Your task to perform on an android device: When is my next appointment? Image 0: 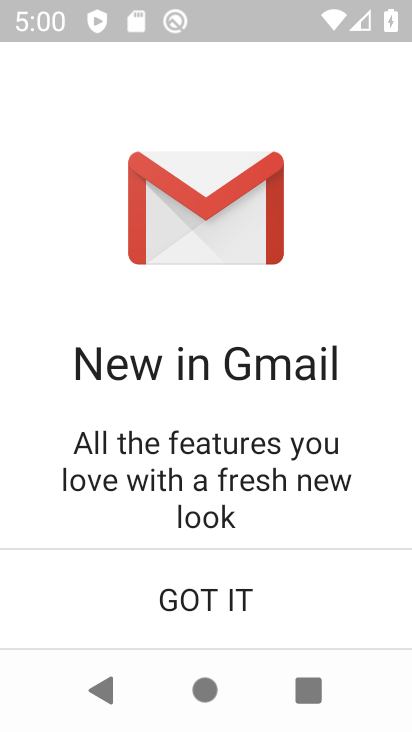
Step 0: click (120, 6)
Your task to perform on an android device: When is my next appointment? Image 1: 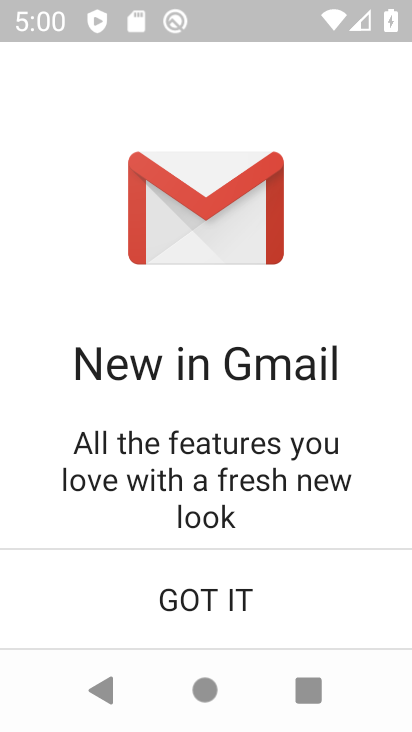
Step 1: press back button
Your task to perform on an android device: When is my next appointment? Image 2: 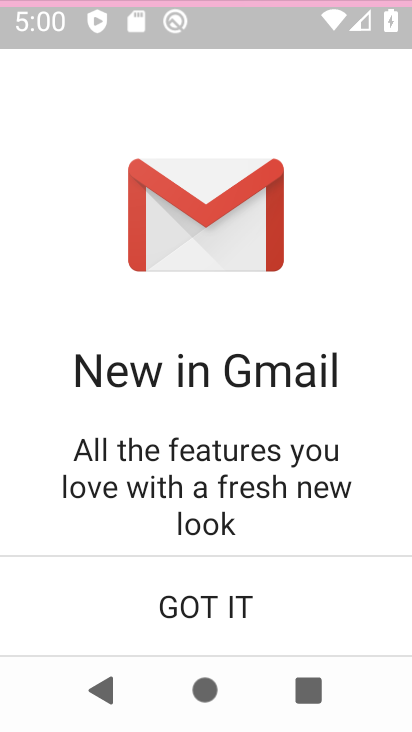
Step 2: press back button
Your task to perform on an android device: When is my next appointment? Image 3: 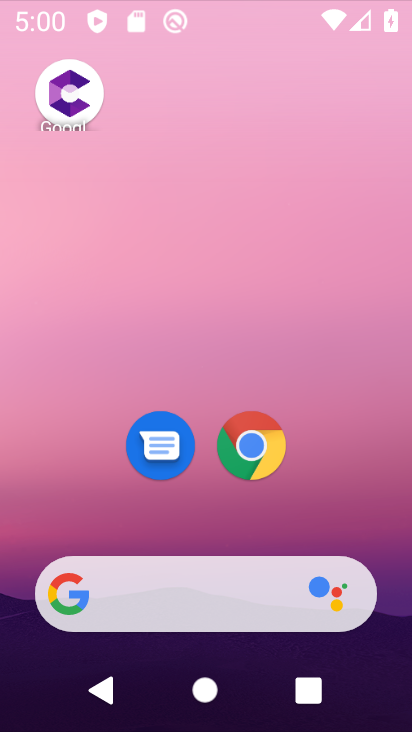
Step 3: press back button
Your task to perform on an android device: When is my next appointment? Image 4: 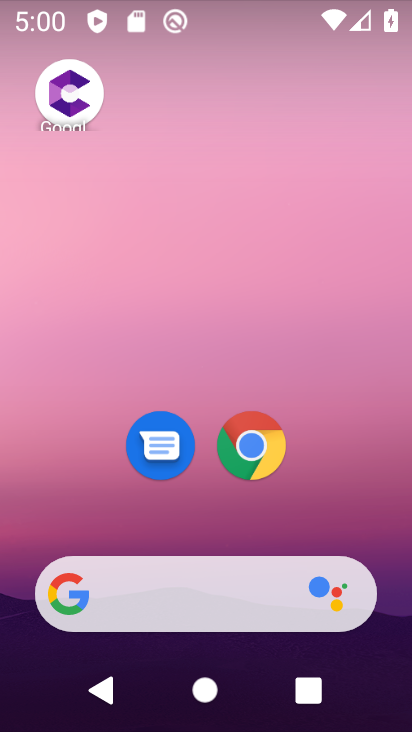
Step 4: drag from (357, 513) to (99, 36)
Your task to perform on an android device: When is my next appointment? Image 5: 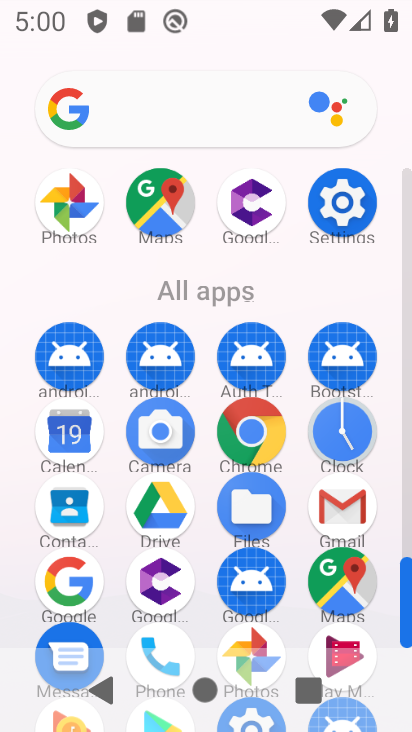
Step 5: drag from (206, 520) to (186, 123)
Your task to perform on an android device: When is my next appointment? Image 6: 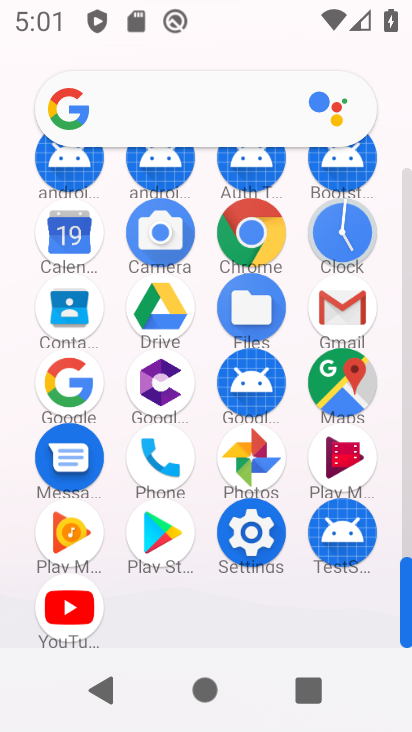
Step 6: click (60, 237)
Your task to perform on an android device: When is my next appointment? Image 7: 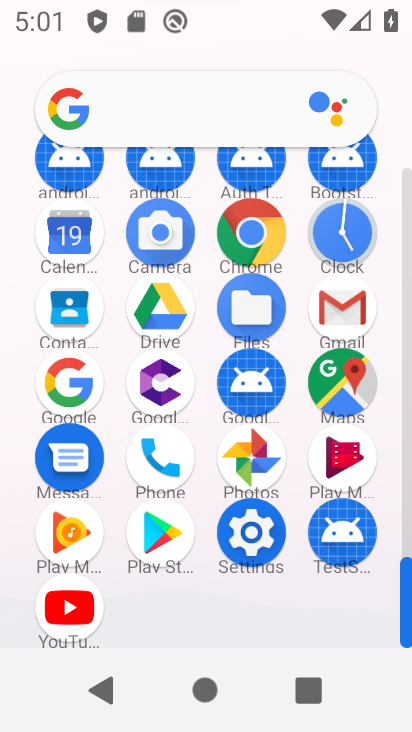
Step 7: click (60, 237)
Your task to perform on an android device: When is my next appointment? Image 8: 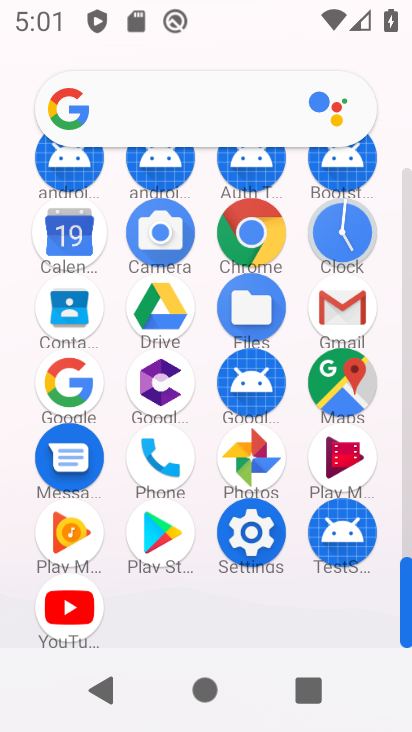
Step 8: click (60, 237)
Your task to perform on an android device: When is my next appointment? Image 9: 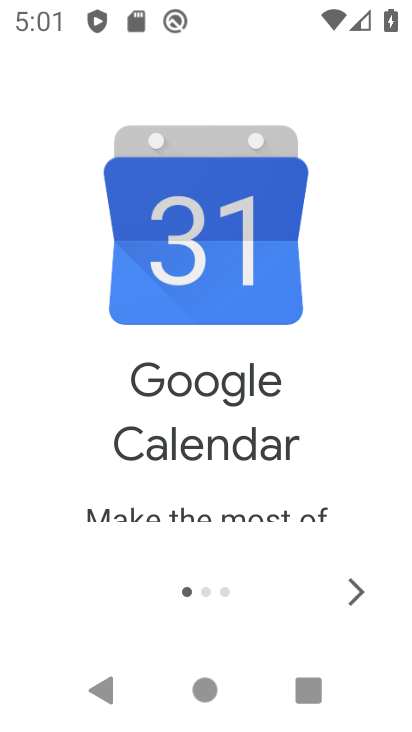
Step 9: click (366, 590)
Your task to perform on an android device: When is my next appointment? Image 10: 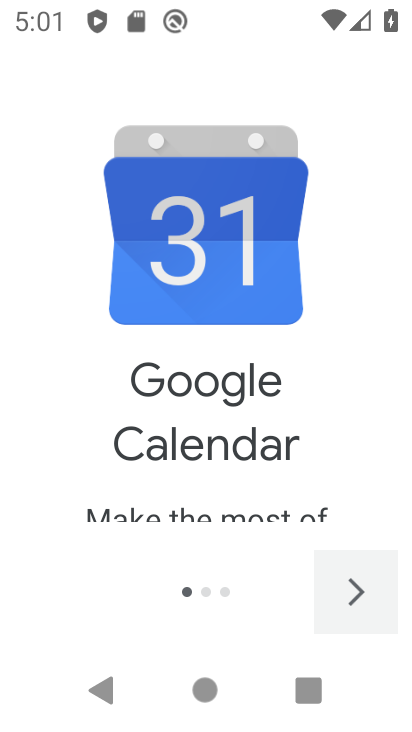
Step 10: click (357, 591)
Your task to perform on an android device: When is my next appointment? Image 11: 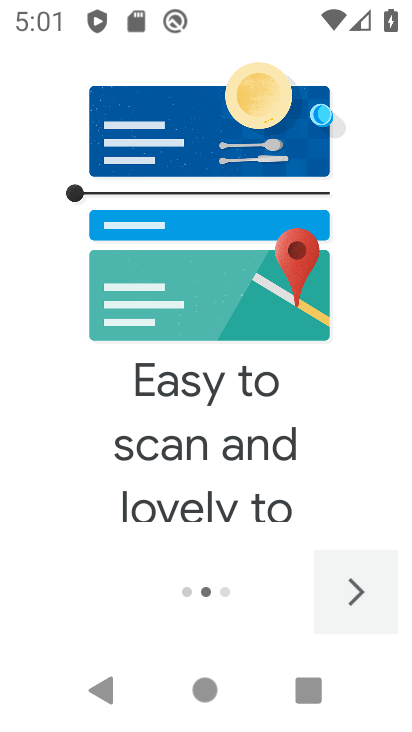
Step 11: click (357, 591)
Your task to perform on an android device: When is my next appointment? Image 12: 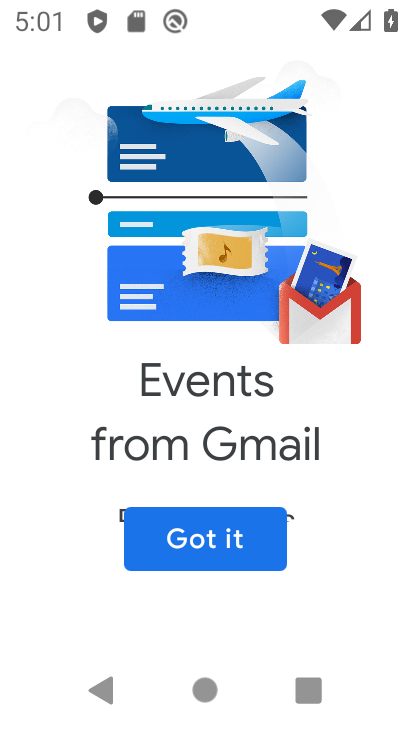
Step 12: click (355, 591)
Your task to perform on an android device: When is my next appointment? Image 13: 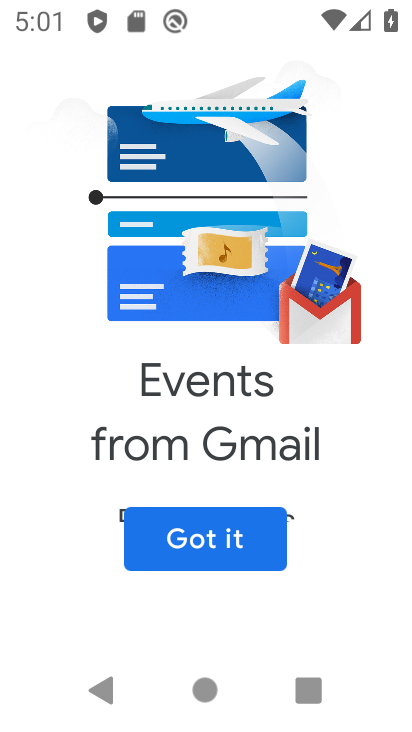
Step 13: click (355, 591)
Your task to perform on an android device: When is my next appointment? Image 14: 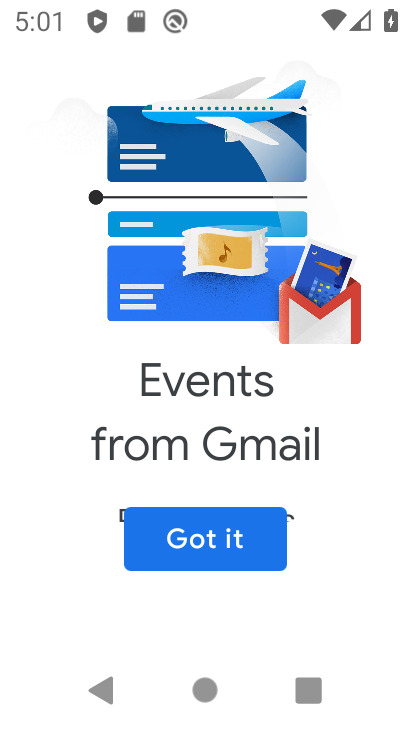
Step 14: click (226, 535)
Your task to perform on an android device: When is my next appointment? Image 15: 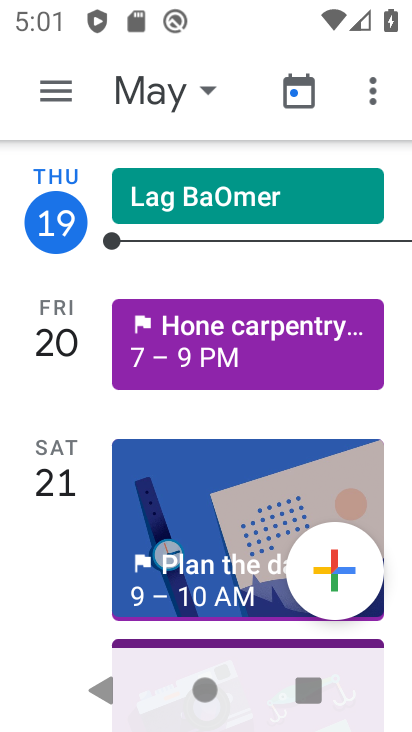
Step 15: drag from (184, 244) to (186, 556)
Your task to perform on an android device: When is my next appointment? Image 16: 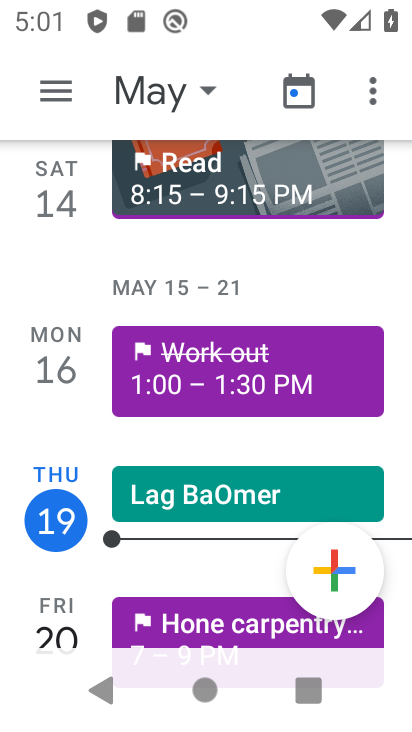
Step 16: drag from (147, 265) to (218, 555)
Your task to perform on an android device: When is my next appointment? Image 17: 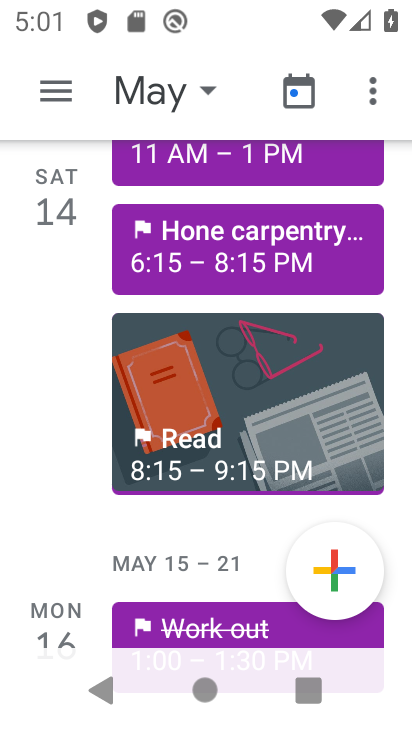
Step 17: drag from (233, 562) to (251, 627)
Your task to perform on an android device: When is my next appointment? Image 18: 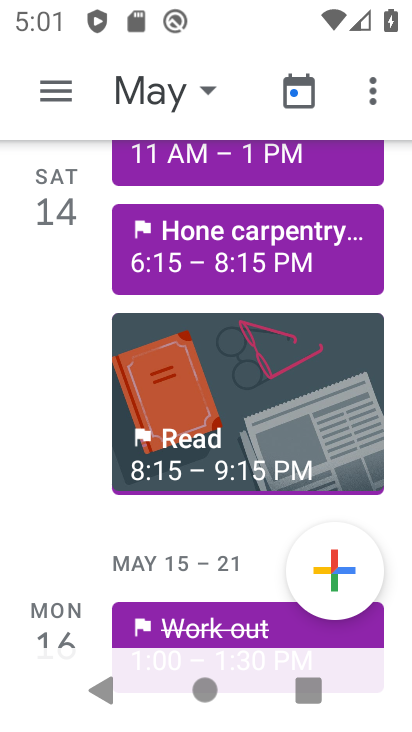
Step 18: drag from (157, 311) to (252, 600)
Your task to perform on an android device: When is my next appointment? Image 19: 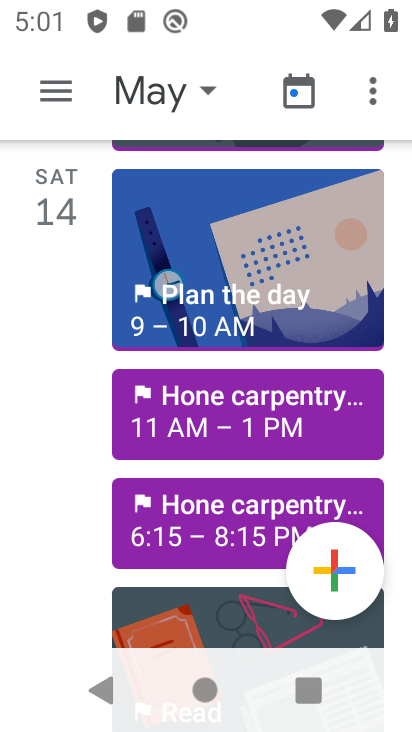
Step 19: drag from (190, 288) to (241, 627)
Your task to perform on an android device: When is my next appointment? Image 20: 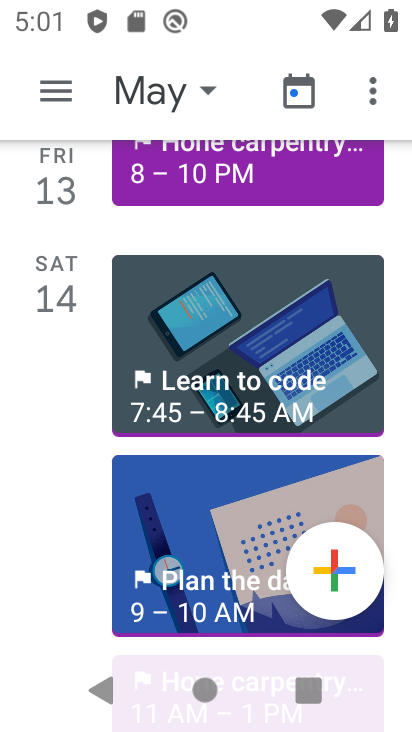
Step 20: drag from (164, 394) to (218, 611)
Your task to perform on an android device: When is my next appointment? Image 21: 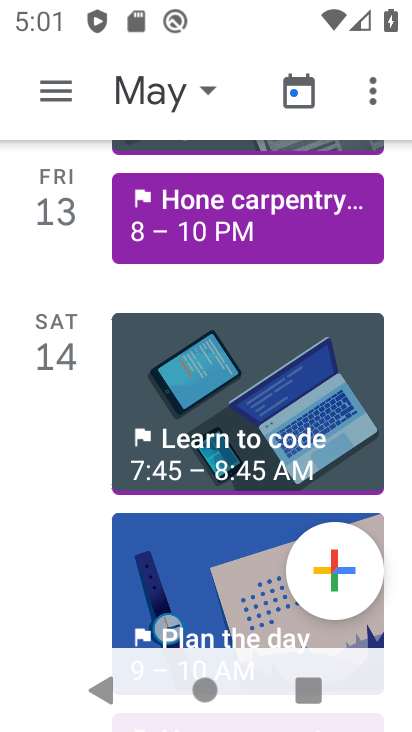
Step 21: drag from (151, 256) to (210, 621)
Your task to perform on an android device: When is my next appointment? Image 22: 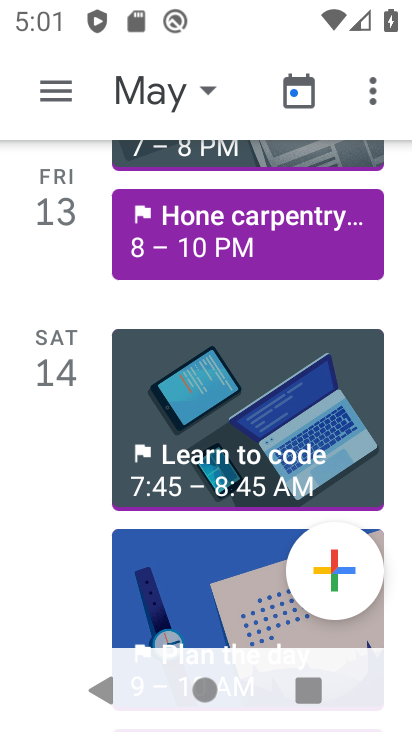
Step 22: drag from (186, 281) to (230, 723)
Your task to perform on an android device: When is my next appointment? Image 23: 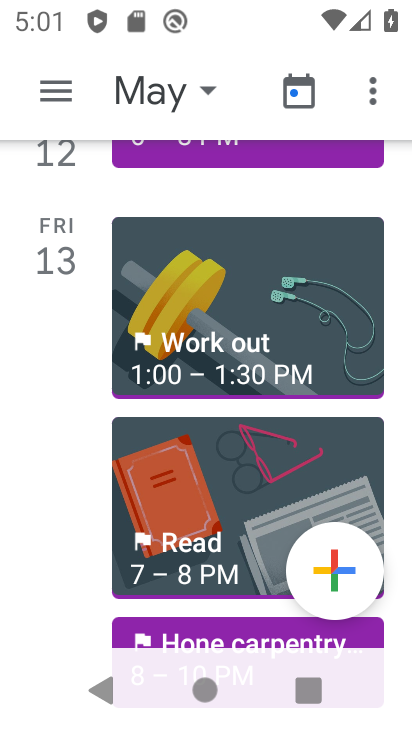
Step 23: drag from (181, 275) to (225, 611)
Your task to perform on an android device: When is my next appointment? Image 24: 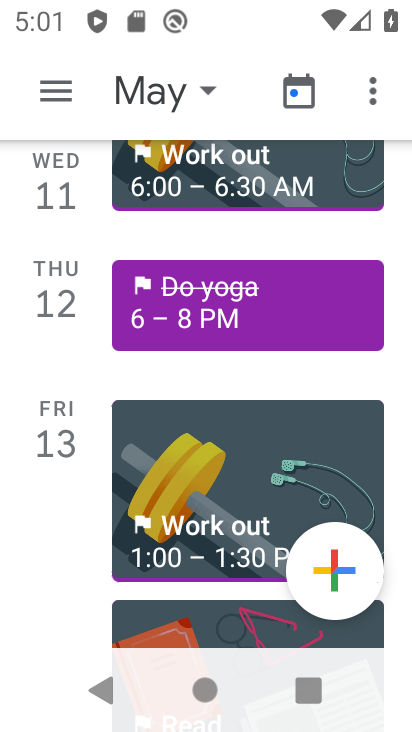
Step 24: drag from (230, 282) to (247, 665)
Your task to perform on an android device: When is my next appointment? Image 25: 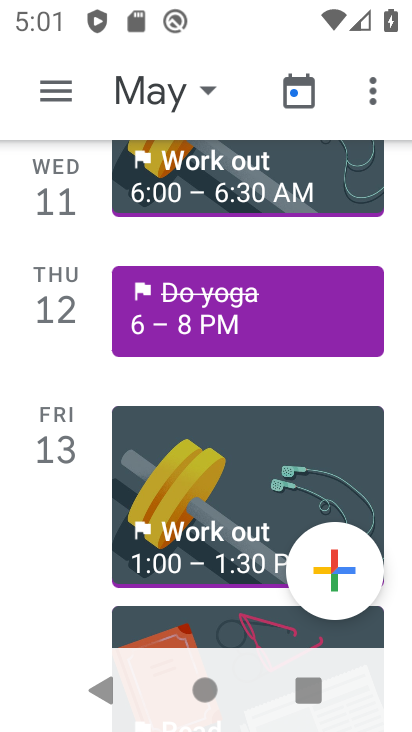
Step 25: drag from (127, 261) to (169, 548)
Your task to perform on an android device: When is my next appointment? Image 26: 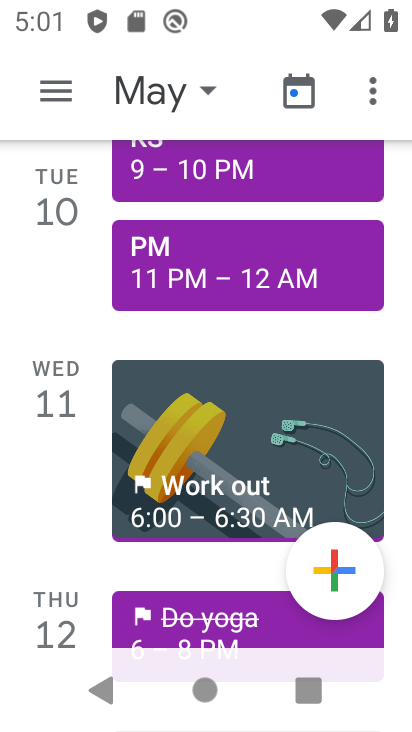
Step 26: drag from (152, 288) to (160, 641)
Your task to perform on an android device: When is my next appointment? Image 27: 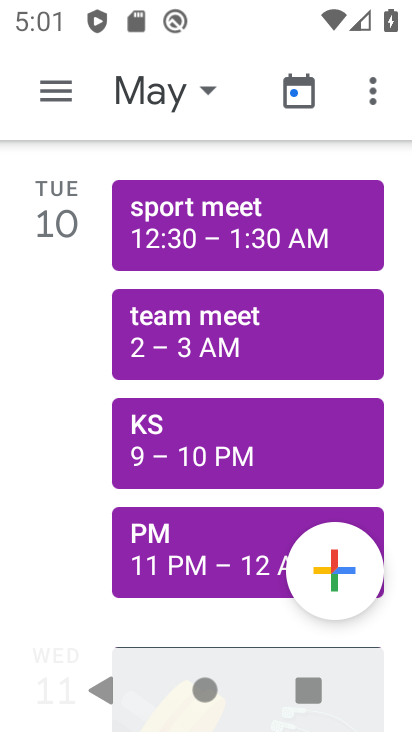
Step 27: drag from (152, 360) to (166, 623)
Your task to perform on an android device: When is my next appointment? Image 28: 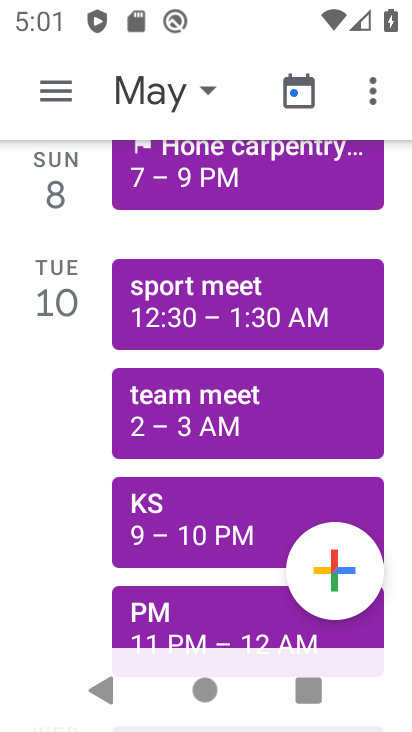
Step 28: drag from (166, 310) to (227, 665)
Your task to perform on an android device: When is my next appointment? Image 29: 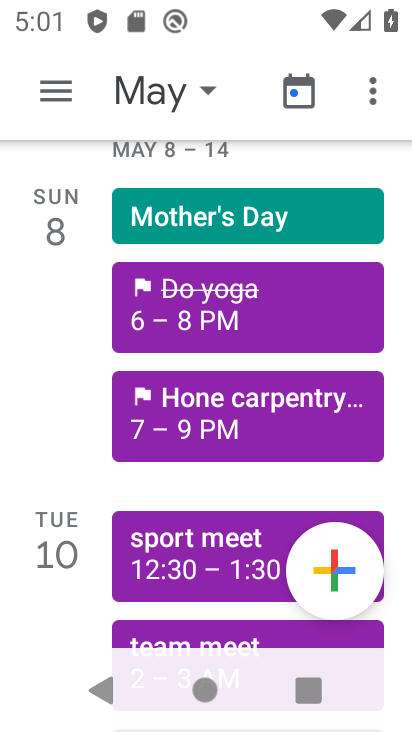
Step 29: drag from (184, 357) to (253, 647)
Your task to perform on an android device: When is my next appointment? Image 30: 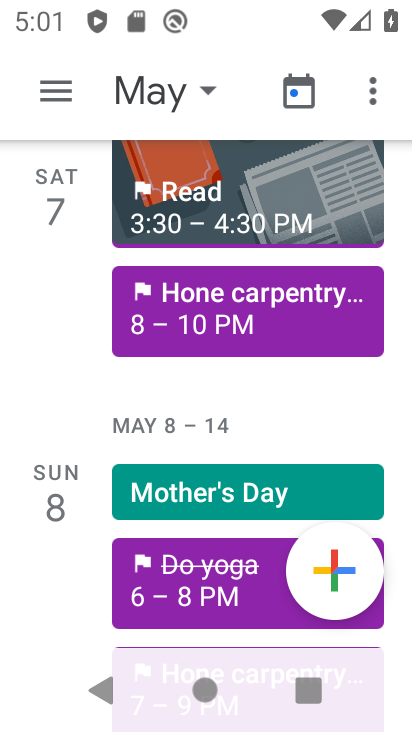
Step 30: drag from (205, 313) to (239, 590)
Your task to perform on an android device: When is my next appointment? Image 31: 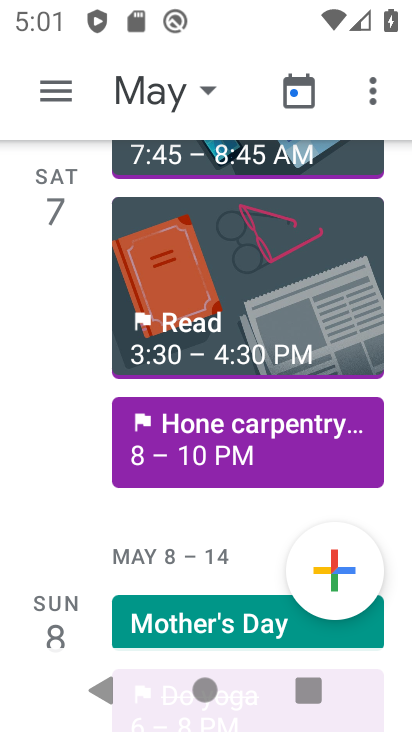
Step 31: drag from (193, 601) to (238, 168)
Your task to perform on an android device: When is my next appointment? Image 32: 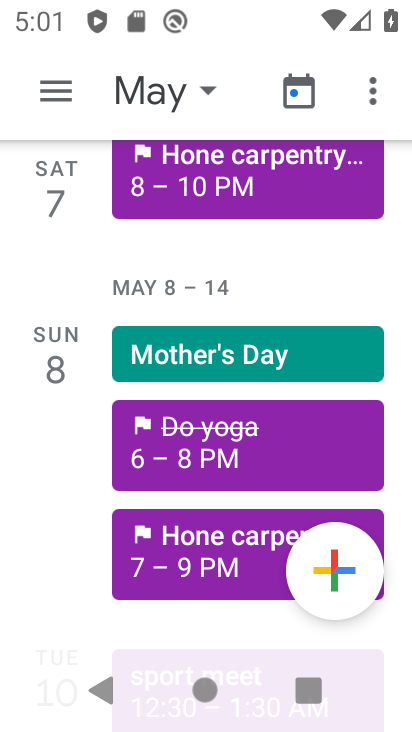
Step 32: drag from (241, 443) to (178, 76)
Your task to perform on an android device: When is my next appointment? Image 33: 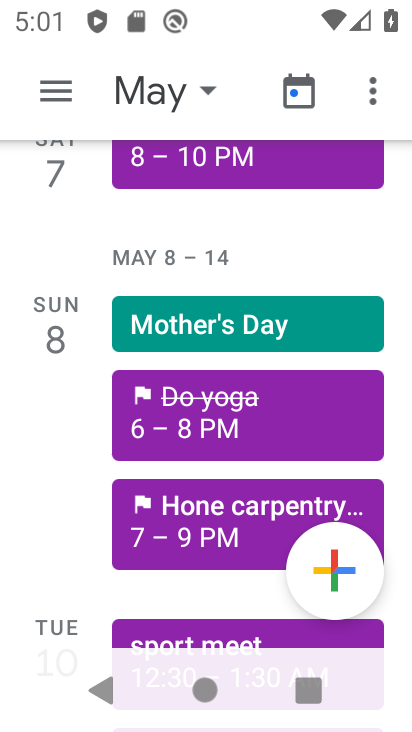
Step 33: drag from (165, 473) to (139, 270)
Your task to perform on an android device: When is my next appointment? Image 34: 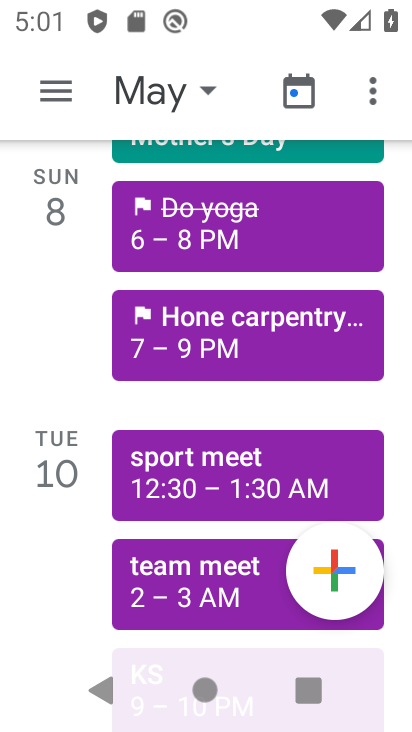
Step 34: drag from (150, 364) to (126, 197)
Your task to perform on an android device: When is my next appointment? Image 35: 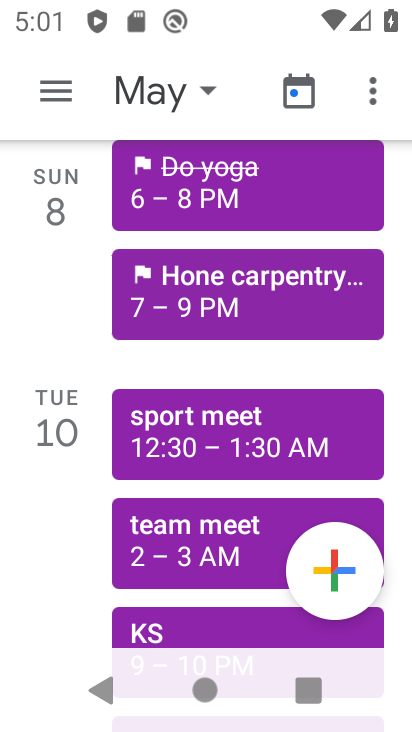
Step 35: drag from (166, 409) to (140, 92)
Your task to perform on an android device: When is my next appointment? Image 36: 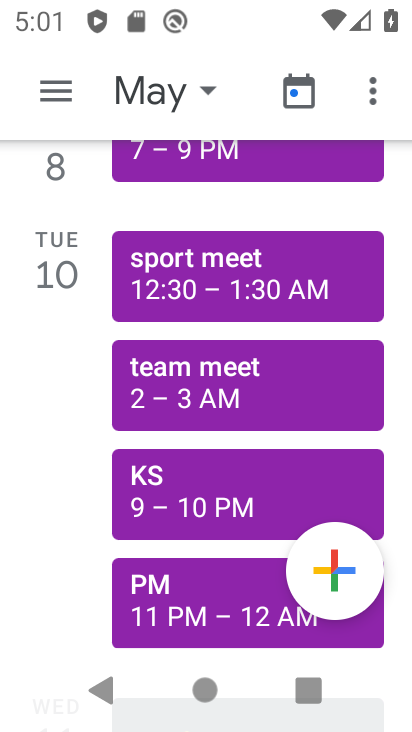
Step 36: drag from (194, 426) to (133, 132)
Your task to perform on an android device: When is my next appointment? Image 37: 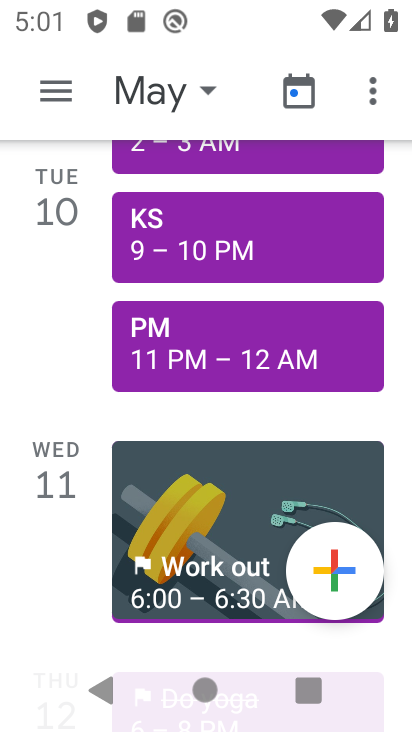
Step 37: drag from (168, 467) to (153, 141)
Your task to perform on an android device: When is my next appointment? Image 38: 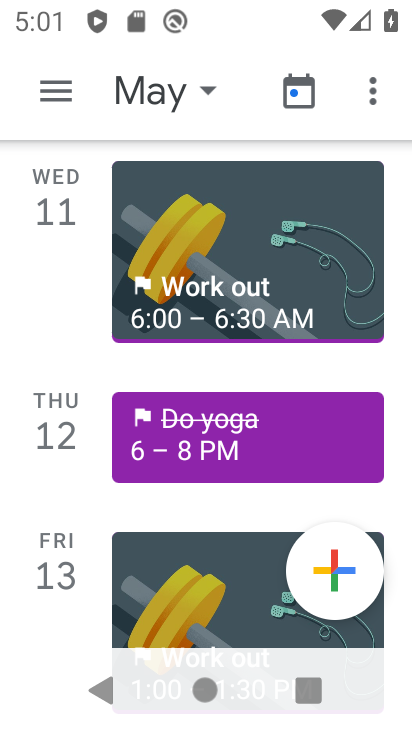
Step 38: drag from (176, 422) to (174, 215)
Your task to perform on an android device: When is my next appointment? Image 39: 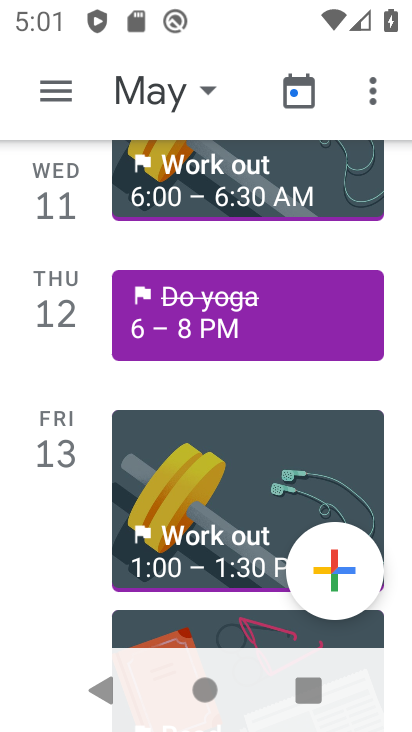
Step 39: drag from (159, 505) to (159, 191)
Your task to perform on an android device: When is my next appointment? Image 40: 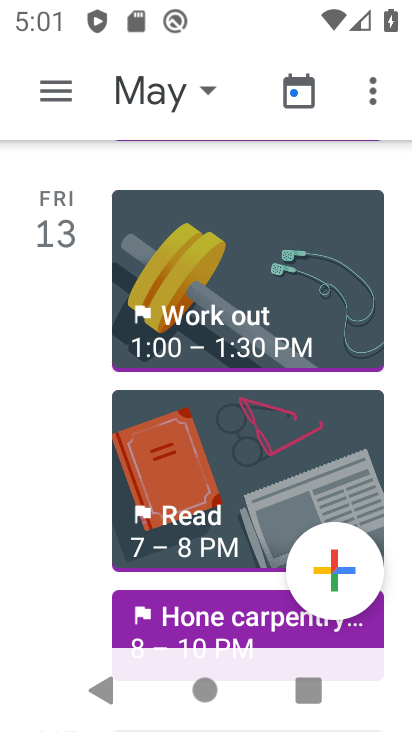
Step 40: drag from (159, 557) to (160, 167)
Your task to perform on an android device: When is my next appointment? Image 41: 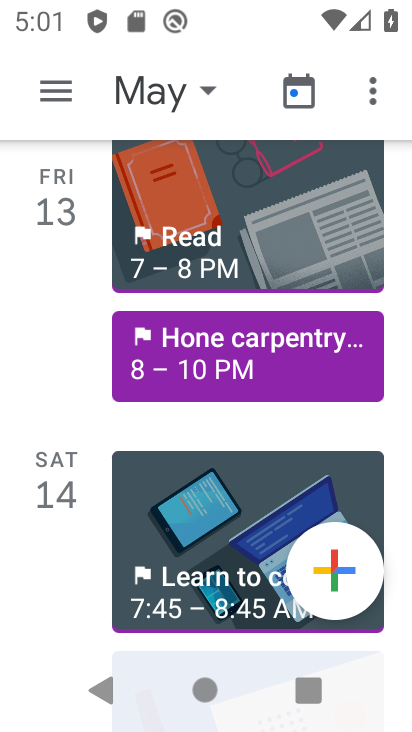
Step 41: drag from (180, 460) to (200, 69)
Your task to perform on an android device: When is my next appointment? Image 42: 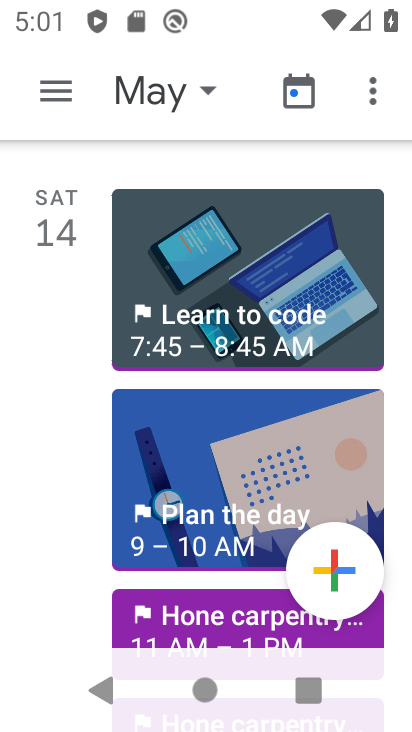
Step 42: drag from (176, 532) to (196, 185)
Your task to perform on an android device: When is my next appointment? Image 43: 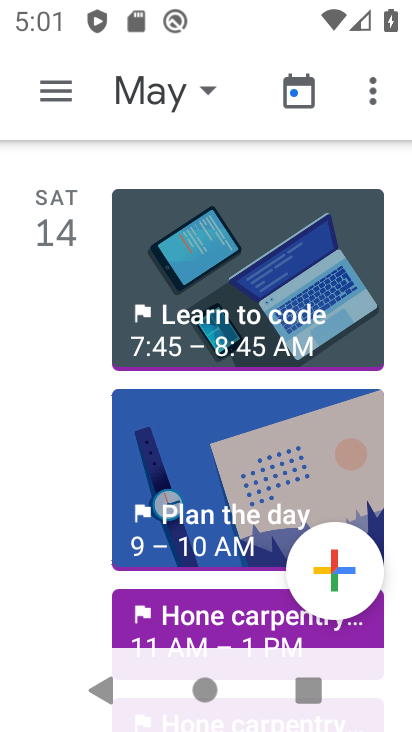
Step 43: drag from (194, 561) to (148, 194)
Your task to perform on an android device: When is my next appointment? Image 44: 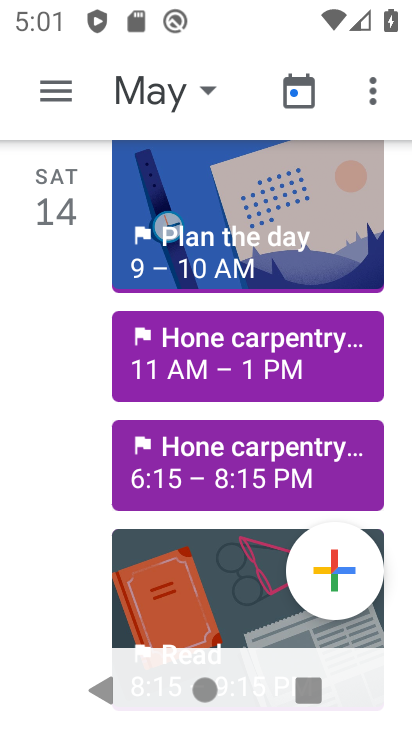
Step 44: drag from (209, 592) to (262, 525)
Your task to perform on an android device: When is my next appointment? Image 45: 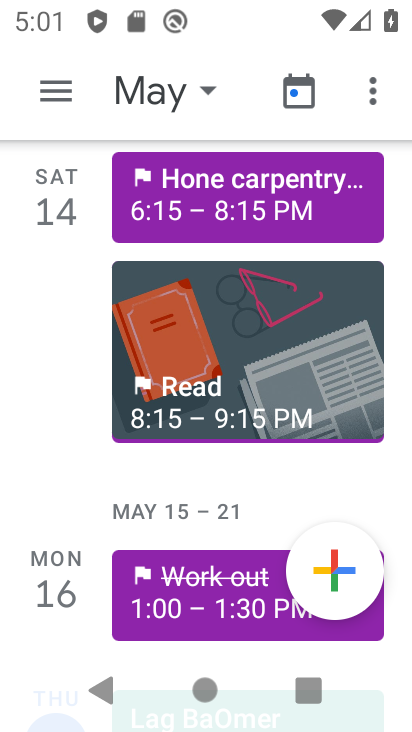
Step 45: drag from (244, 439) to (207, 131)
Your task to perform on an android device: When is my next appointment? Image 46: 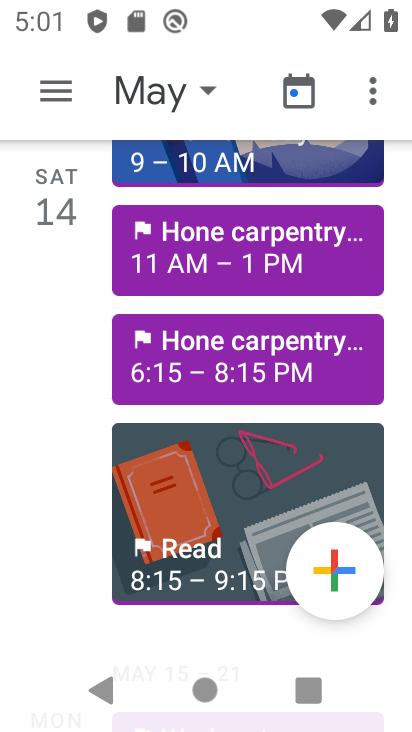
Step 46: drag from (201, 569) to (188, 213)
Your task to perform on an android device: When is my next appointment? Image 47: 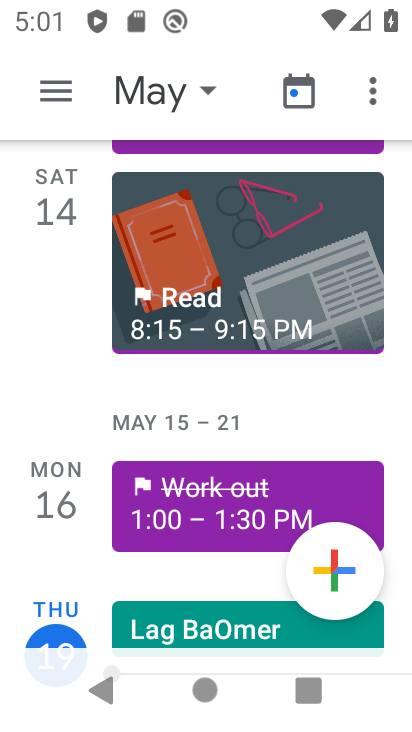
Step 47: click (115, 201)
Your task to perform on an android device: When is my next appointment? Image 48: 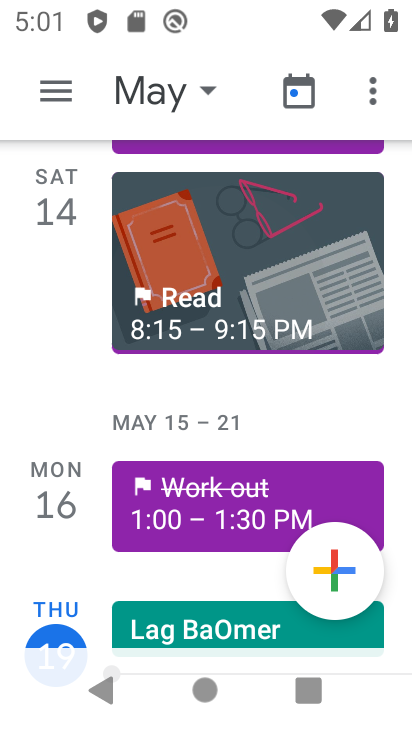
Step 48: drag from (199, 462) to (193, 246)
Your task to perform on an android device: When is my next appointment? Image 49: 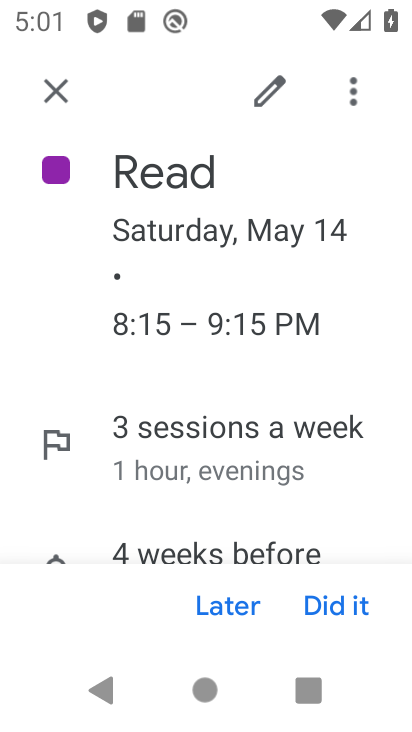
Step 49: click (49, 101)
Your task to perform on an android device: When is my next appointment? Image 50: 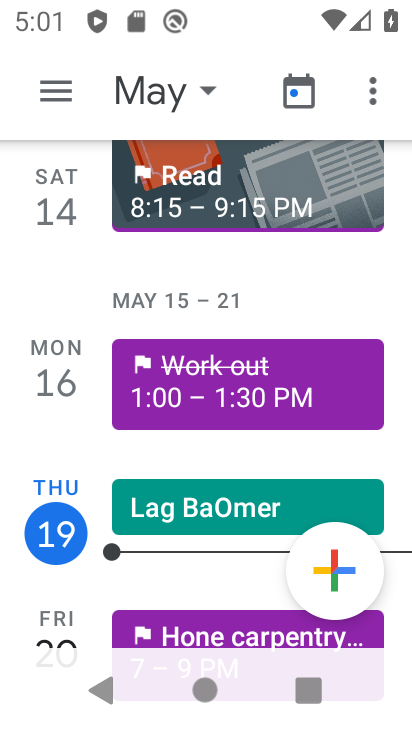
Step 50: task complete